Your task to perform on an android device: turn pop-ups on in chrome Image 0: 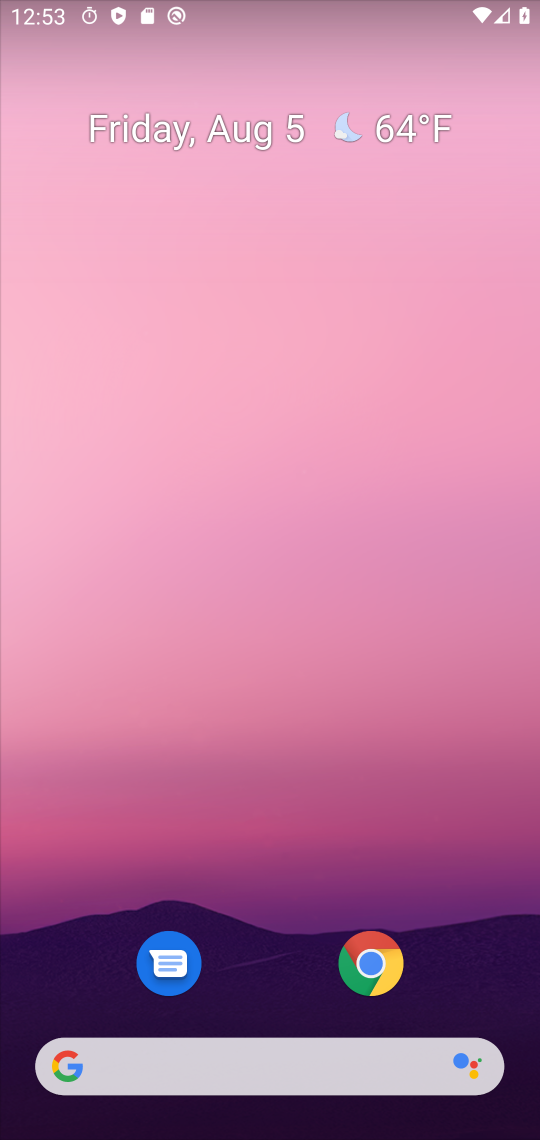
Step 0: drag from (235, 958) to (402, 29)
Your task to perform on an android device: turn pop-ups on in chrome Image 1: 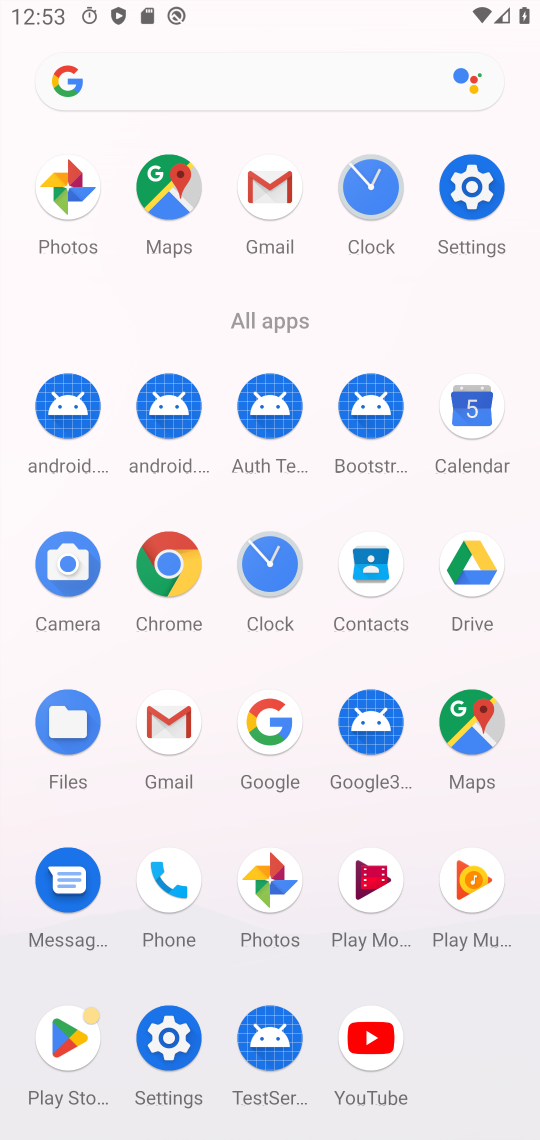
Step 1: click (155, 588)
Your task to perform on an android device: turn pop-ups on in chrome Image 2: 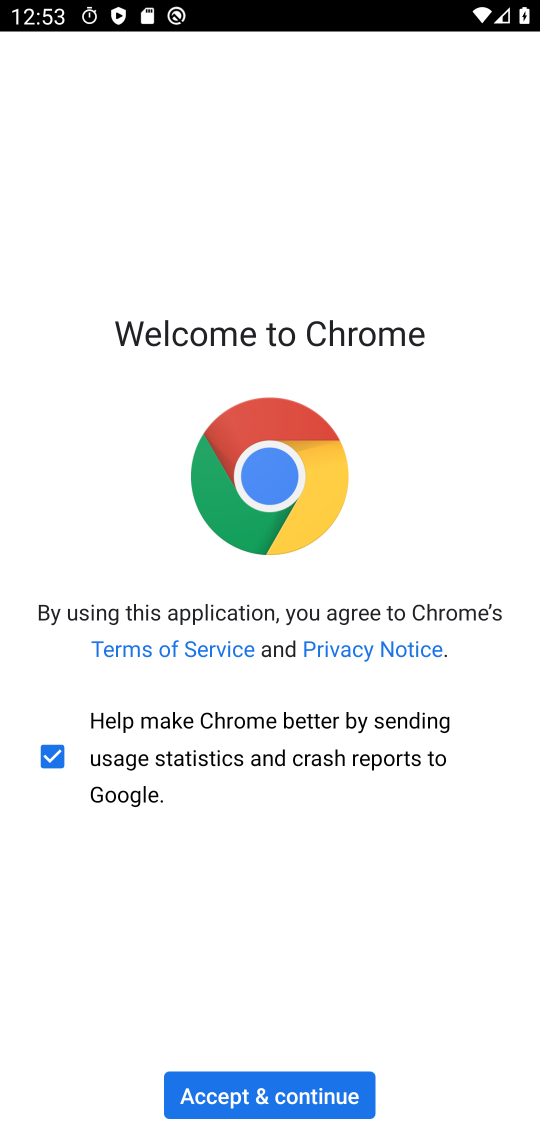
Step 2: click (281, 1103)
Your task to perform on an android device: turn pop-ups on in chrome Image 3: 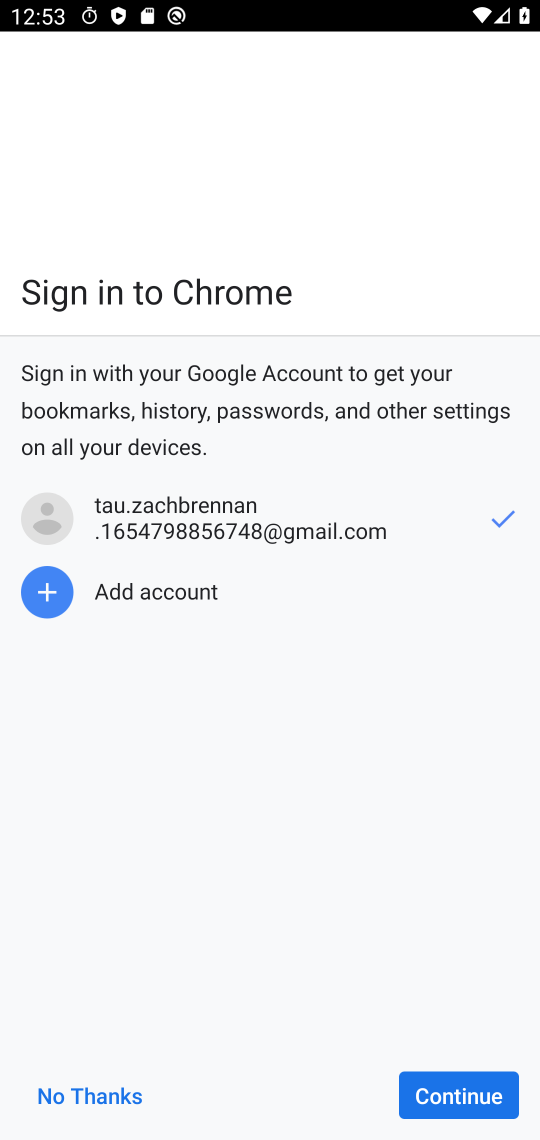
Step 3: click (110, 1108)
Your task to perform on an android device: turn pop-ups on in chrome Image 4: 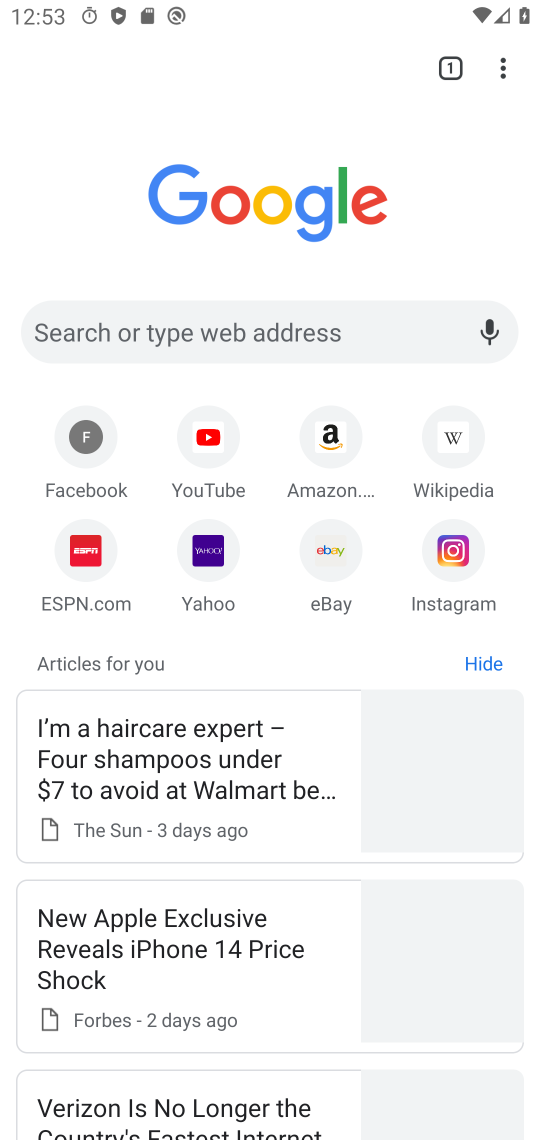
Step 4: drag from (507, 82) to (295, 554)
Your task to perform on an android device: turn pop-ups on in chrome Image 5: 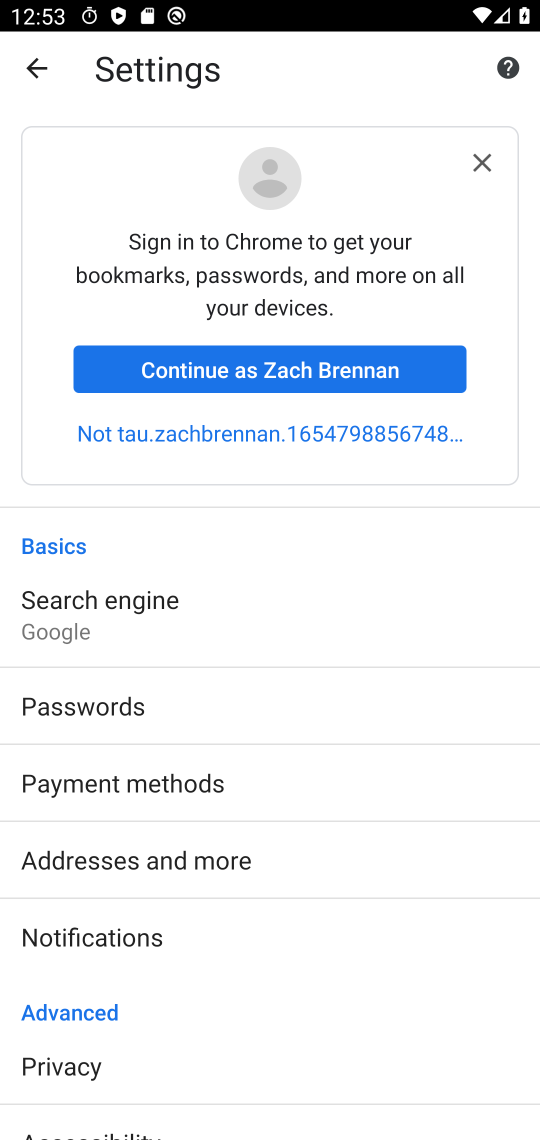
Step 5: drag from (185, 932) to (295, 197)
Your task to perform on an android device: turn pop-ups on in chrome Image 6: 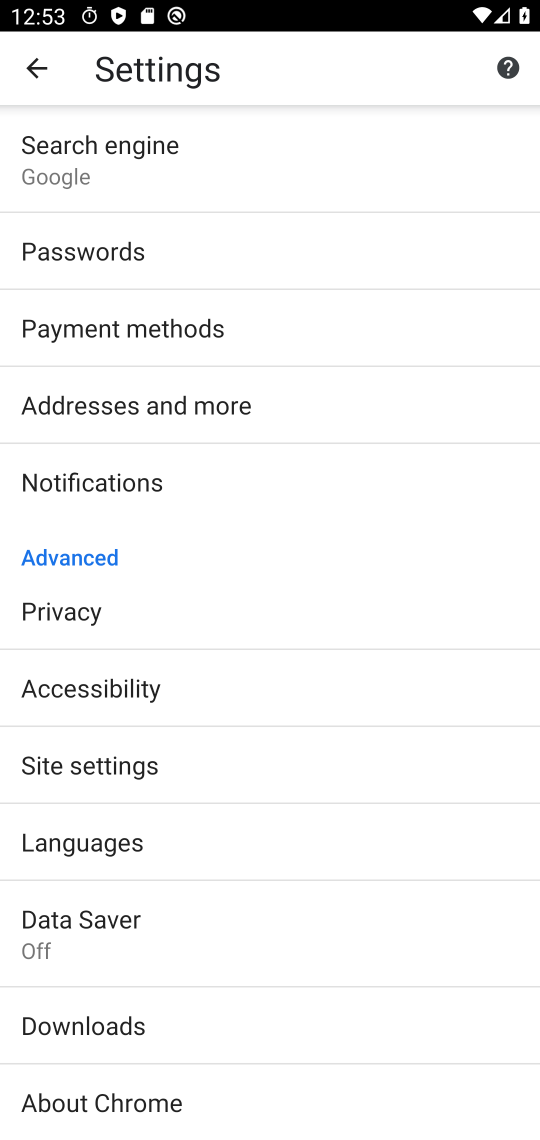
Step 6: click (136, 763)
Your task to perform on an android device: turn pop-ups on in chrome Image 7: 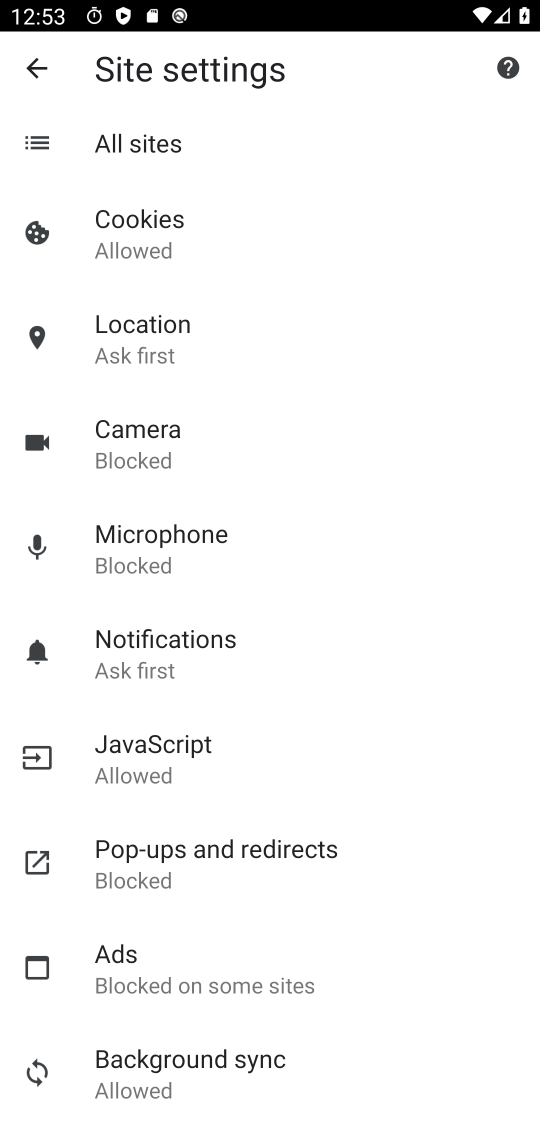
Step 7: click (156, 864)
Your task to perform on an android device: turn pop-ups on in chrome Image 8: 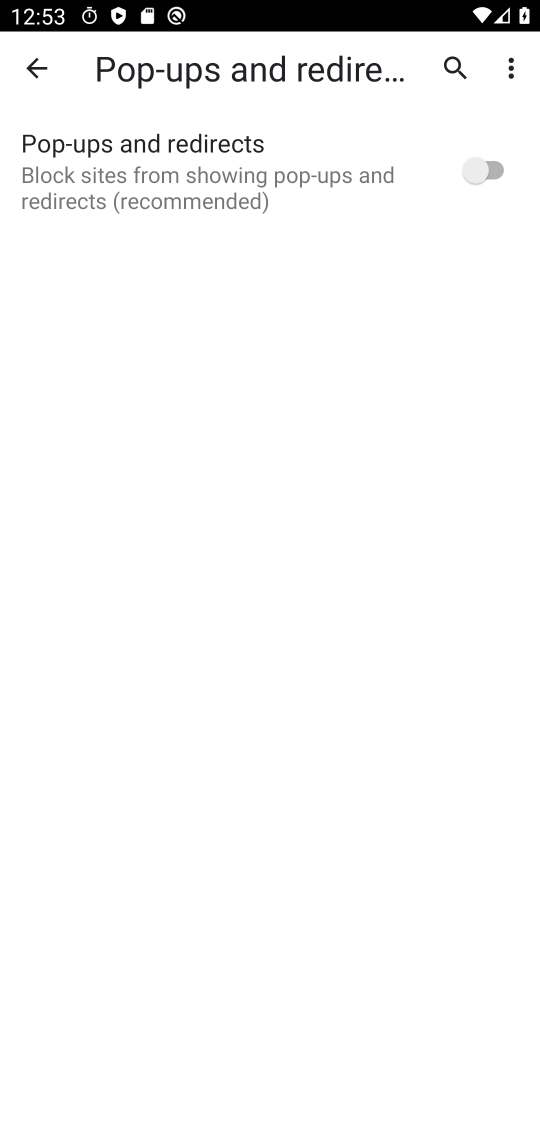
Step 8: click (489, 166)
Your task to perform on an android device: turn pop-ups on in chrome Image 9: 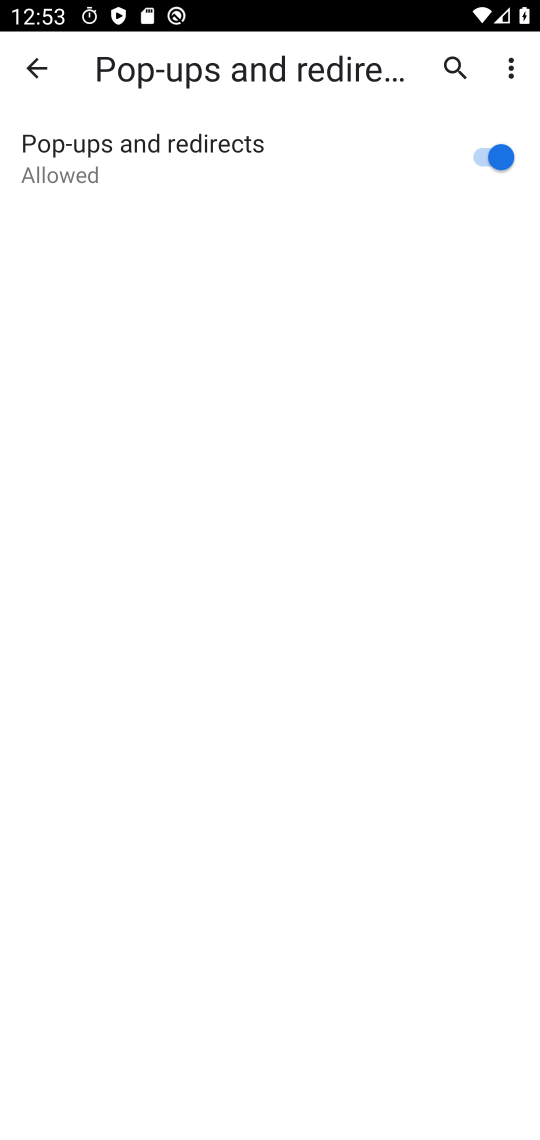
Step 9: task complete